Your task to perform on an android device: Open the web browser Image 0: 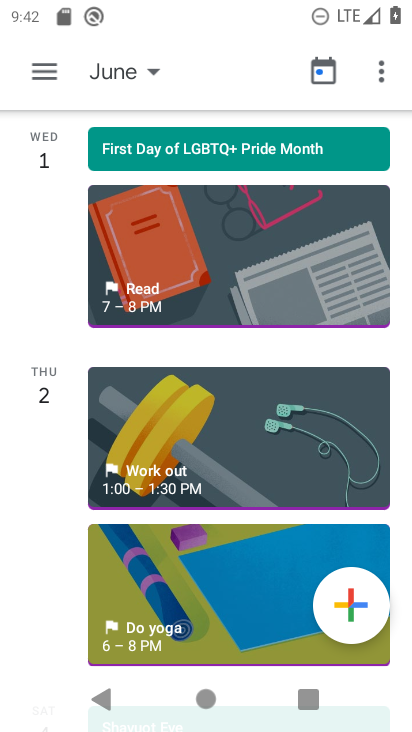
Step 0: press home button
Your task to perform on an android device: Open the web browser Image 1: 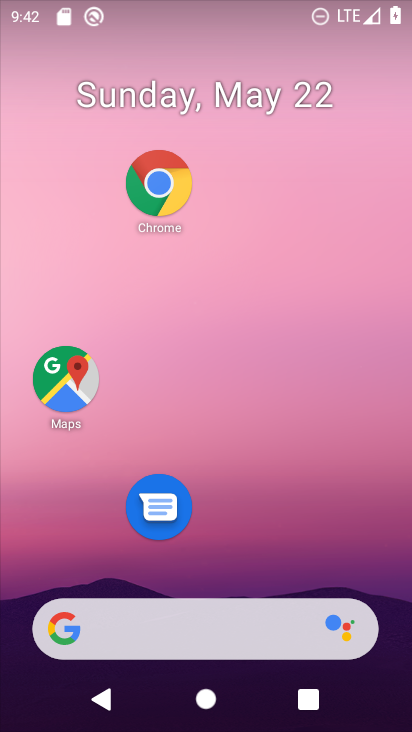
Step 1: click (169, 191)
Your task to perform on an android device: Open the web browser Image 2: 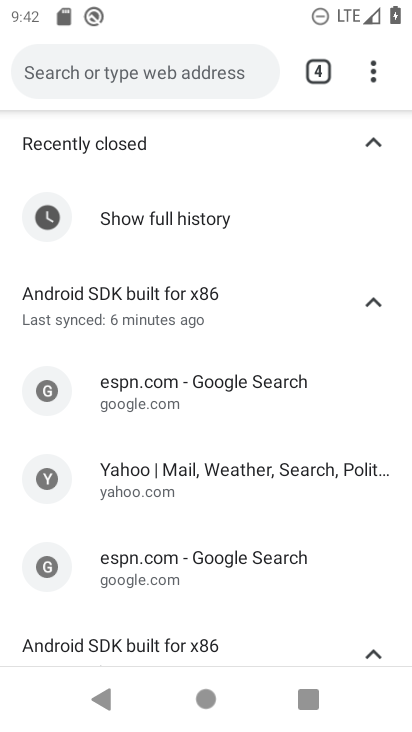
Step 2: task complete